Your task to perform on an android device: Is it going to rain today? Image 0: 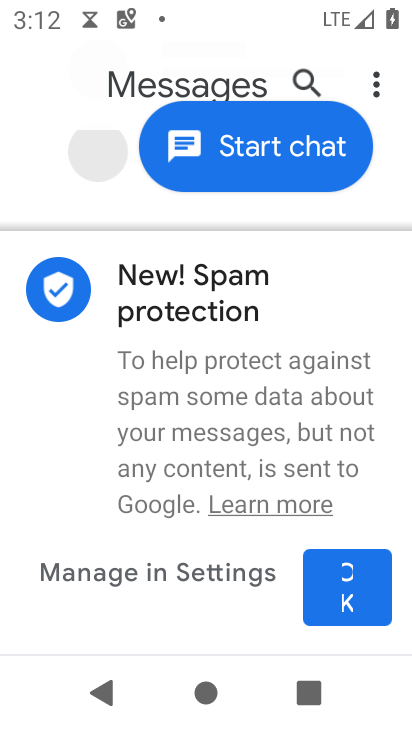
Step 0: press home button
Your task to perform on an android device: Is it going to rain today? Image 1: 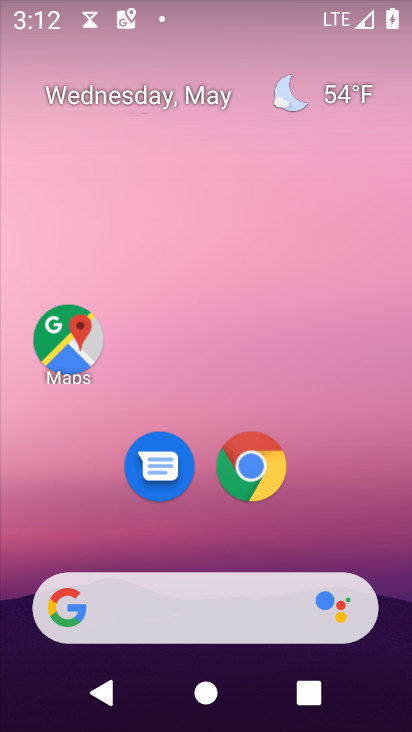
Step 1: drag from (365, 556) to (273, 173)
Your task to perform on an android device: Is it going to rain today? Image 2: 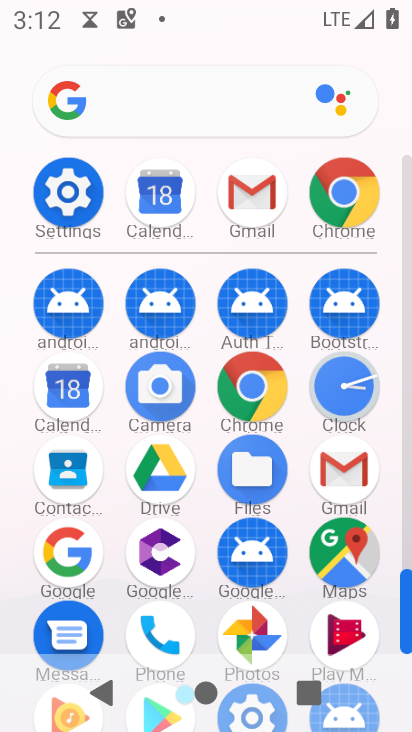
Step 2: click (362, 183)
Your task to perform on an android device: Is it going to rain today? Image 3: 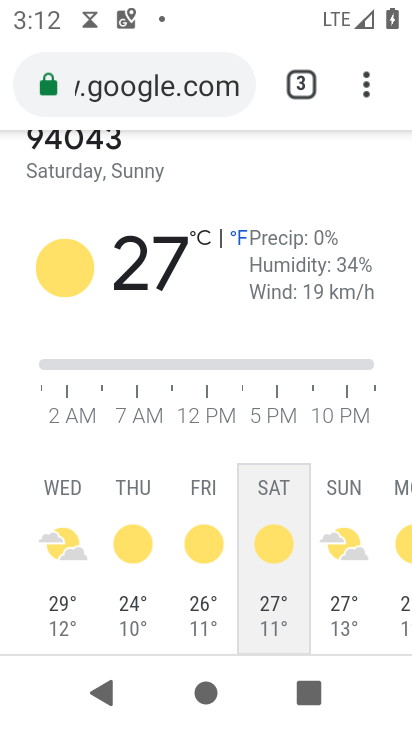
Step 3: click (183, 78)
Your task to perform on an android device: Is it going to rain today? Image 4: 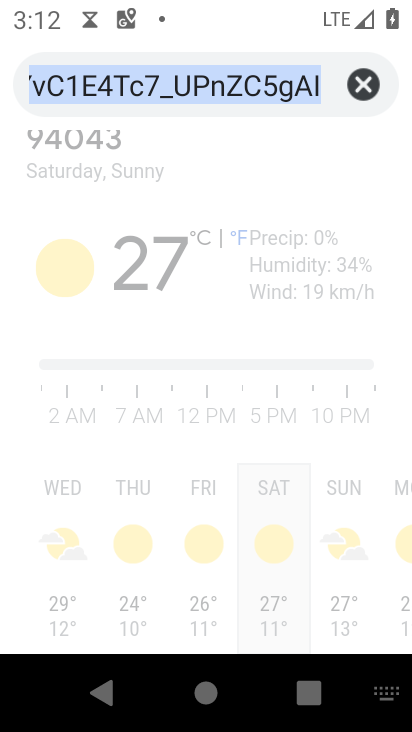
Step 4: type "Is it going to rain today?"
Your task to perform on an android device: Is it going to rain today? Image 5: 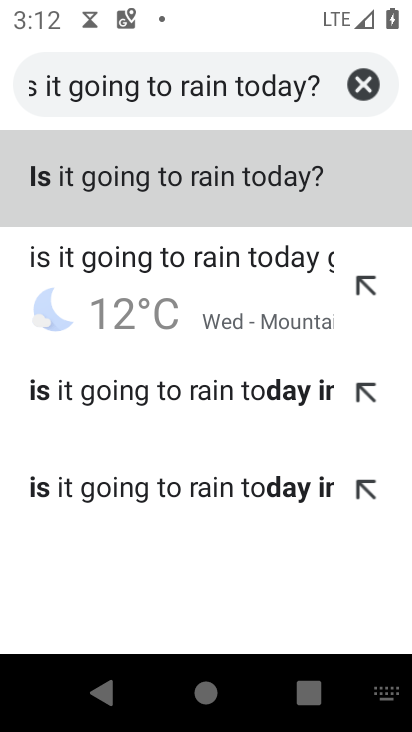
Step 5: click (260, 176)
Your task to perform on an android device: Is it going to rain today? Image 6: 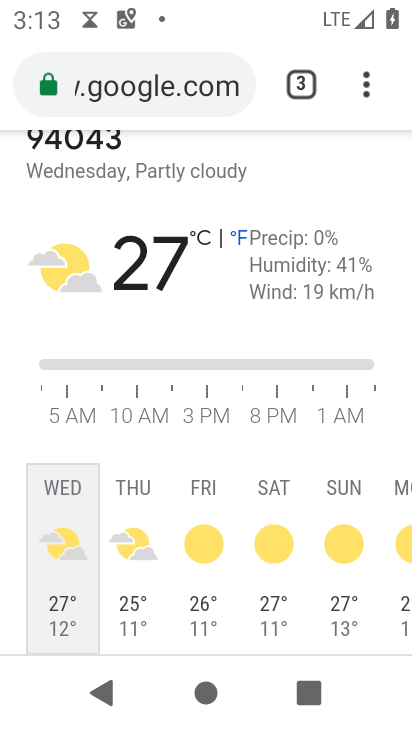
Step 6: task complete